Your task to perform on an android device: Search for Italian restaurants on Maps Image 0: 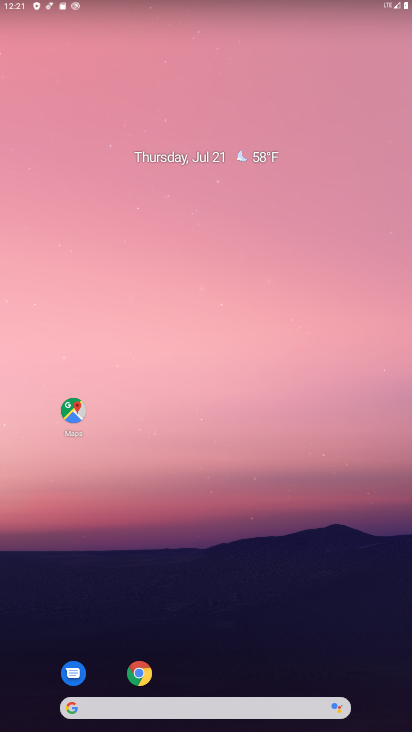
Step 0: drag from (193, 626) to (209, 12)
Your task to perform on an android device: Search for Italian restaurants on Maps Image 1: 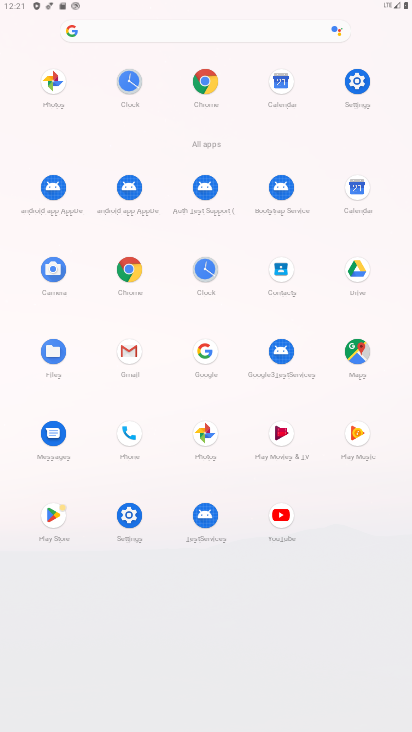
Step 1: click (352, 354)
Your task to perform on an android device: Search for Italian restaurants on Maps Image 2: 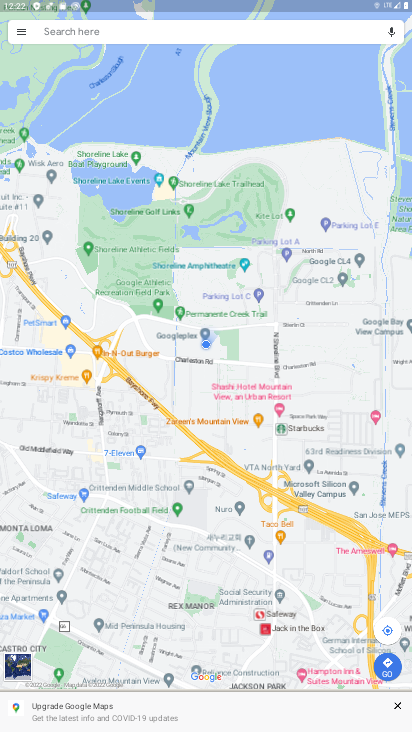
Step 2: click (155, 25)
Your task to perform on an android device: Search for Italian restaurants on Maps Image 3: 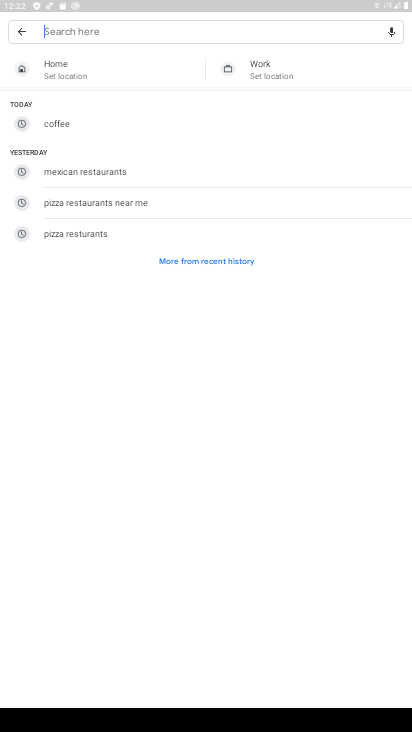
Step 3: click (186, 17)
Your task to perform on an android device: Search for Italian restaurants on Maps Image 4: 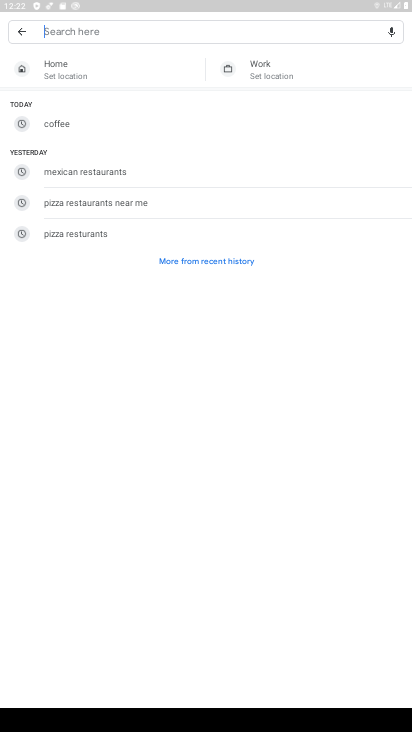
Step 4: type "Italian restaurants  "
Your task to perform on an android device: Search for Italian restaurants on Maps Image 5: 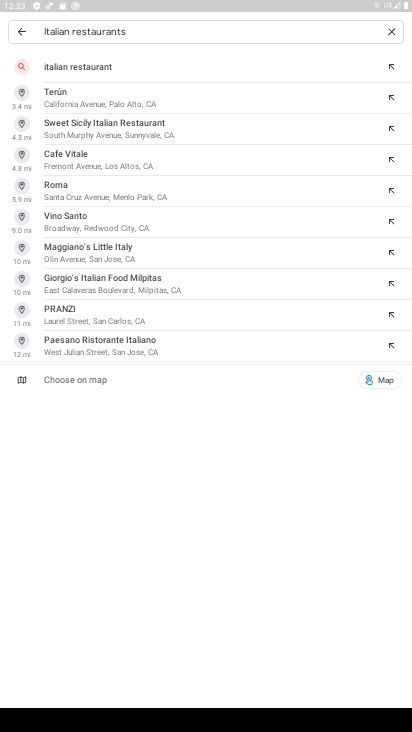
Step 5: click (126, 66)
Your task to perform on an android device: Search for Italian restaurants on Maps Image 6: 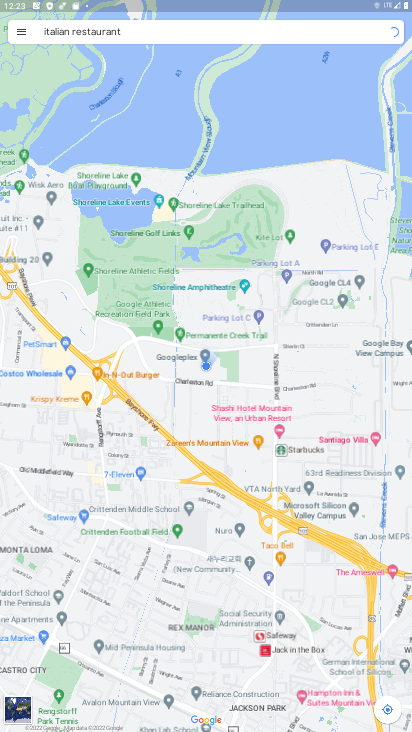
Step 6: task complete